Your task to perform on an android device: turn on priority inbox in the gmail app Image 0: 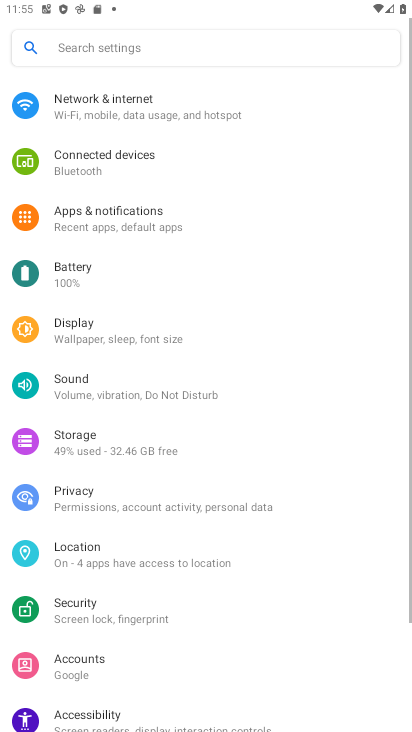
Step 0: drag from (314, 623) to (327, 178)
Your task to perform on an android device: turn on priority inbox in the gmail app Image 1: 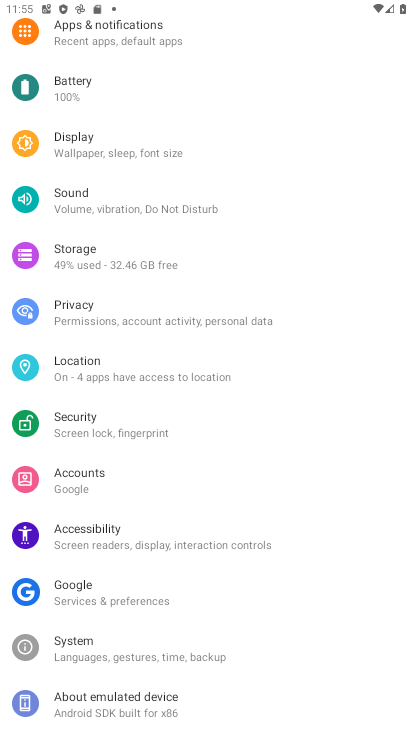
Step 1: press home button
Your task to perform on an android device: turn on priority inbox in the gmail app Image 2: 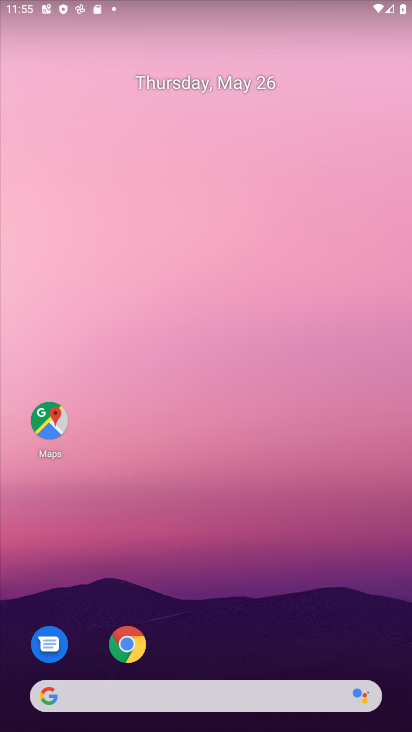
Step 2: drag from (287, 630) to (268, 17)
Your task to perform on an android device: turn on priority inbox in the gmail app Image 3: 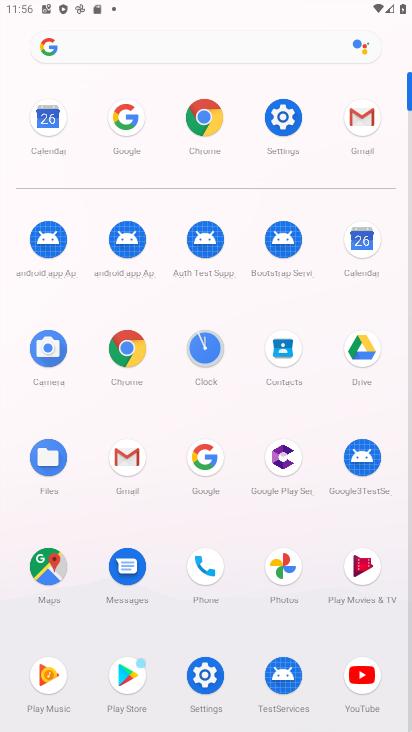
Step 3: click (129, 435)
Your task to perform on an android device: turn on priority inbox in the gmail app Image 4: 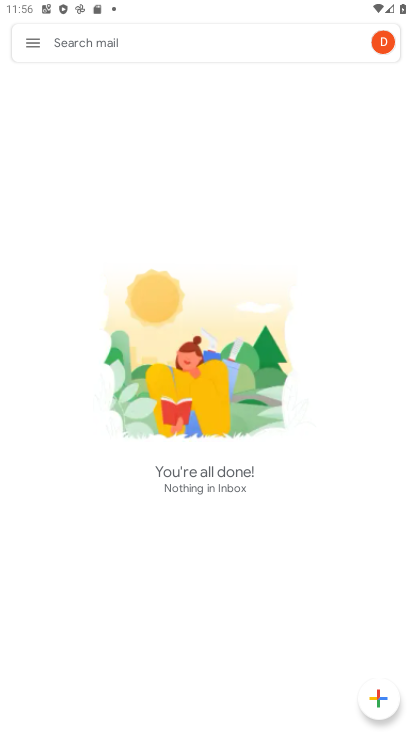
Step 4: click (22, 39)
Your task to perform on an android device: turn on priority inbox in the gmail app Image 5: 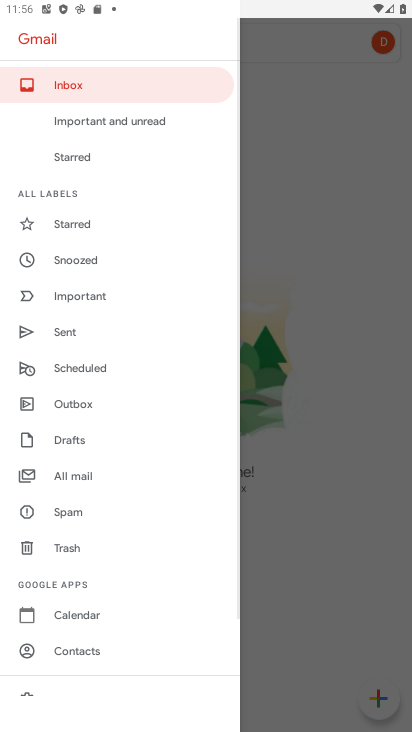
Step 5: drag from (99, 635) to (170, 131)
Your task to perform on an android device: turn on priority inbox in the gmail app Image 6: 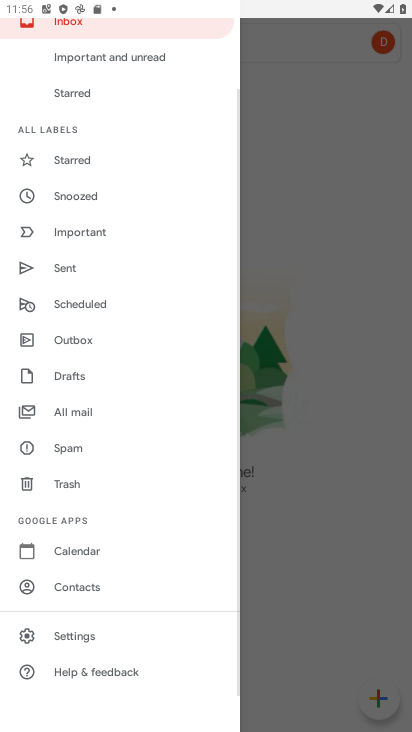
Step 6: click (96, 646)
Your task to perform on an android device: turn on priority inbox in the gmail app Image 7: 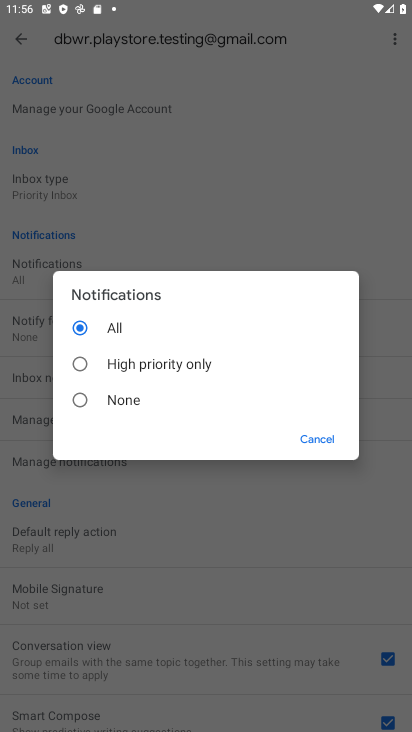
Step 7: click (323, 440)
Your task to perform on an android device: turn on priority inbox in the gmail app Image 8: 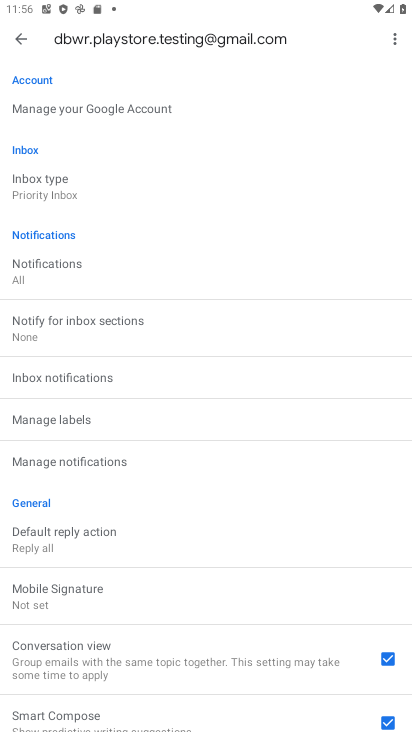
Step 8: click (65, 192)
Your task to perform on an android device: turn on priority inbox in the gmail app Image 9: 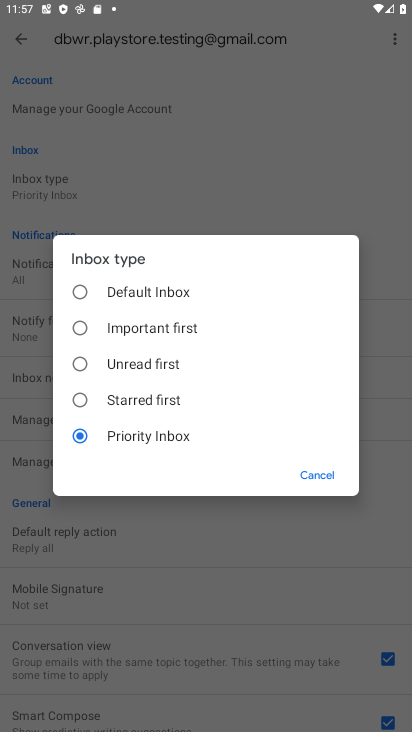
Step 9: task complete